Your task to perform on an android device: Go to ESPN.com Image 0: 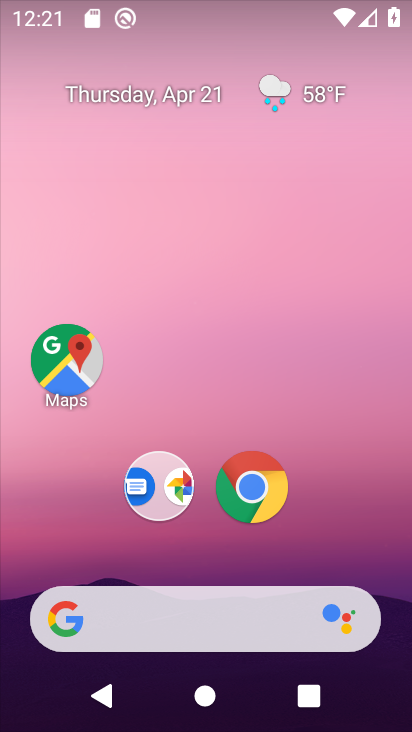
Step 0: drag from (265, 635) to (244, 275)
Your task to perform on an android device: Go to ESPN.com Image 1: 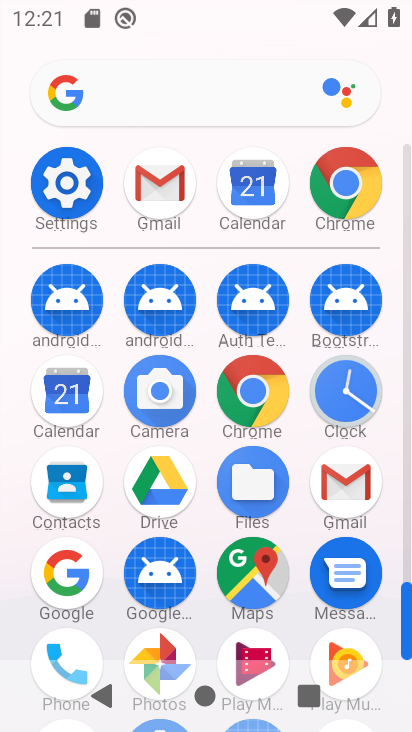
Step 1: click (241, 407)
Your task to perform on an android device: Go to ESPN.com Image 2: 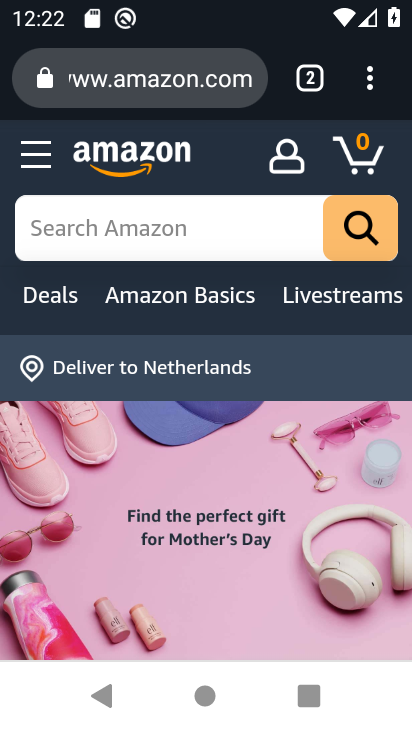
Step 2: click (215, 82)
Your task to perform on an android device: Go to ESPN.com Image 3: 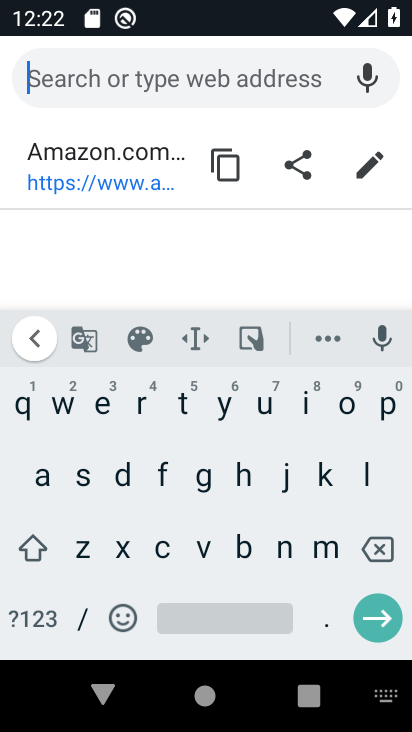
Step 3: click (105, 412)
Your task to perform on an android device: Go to ESPN.com Image 4: 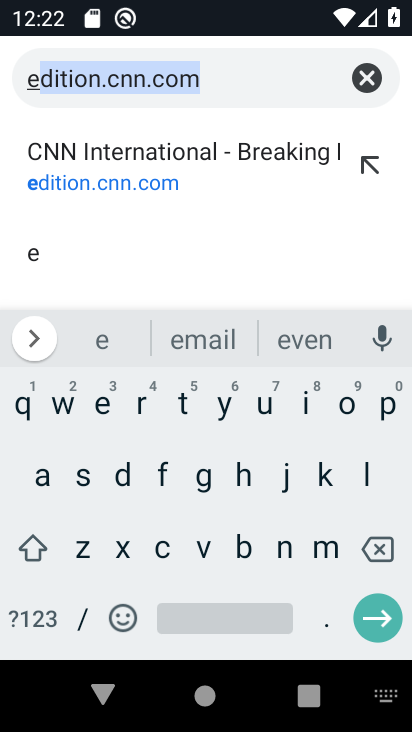
Step 4: click (83, 472)
Your task to perform on an android device: Go to ESPN.com Image 5: 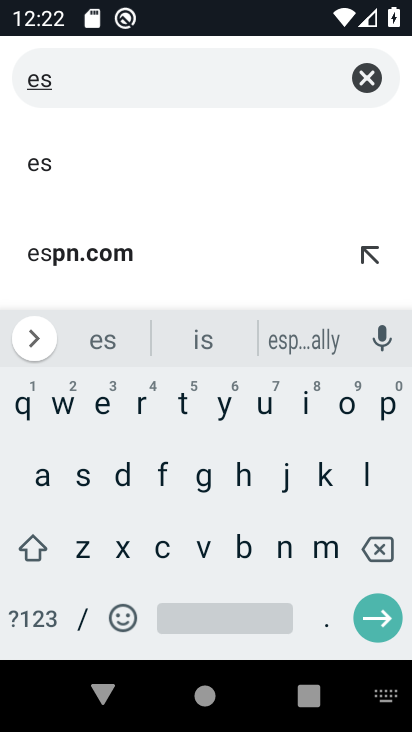
Step 5: click (145, 246)
Your task to perform on an android device: Go to ESPN.com Image 6: 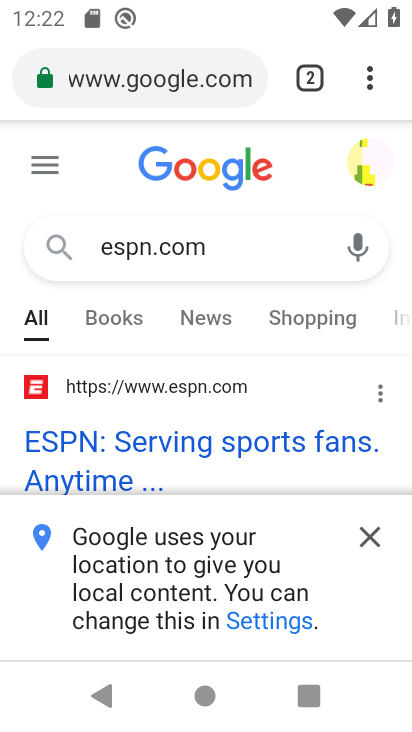
Step 6: click (74, 425)
Your task to perform on an android device: Go to ESPN.com Image 7: 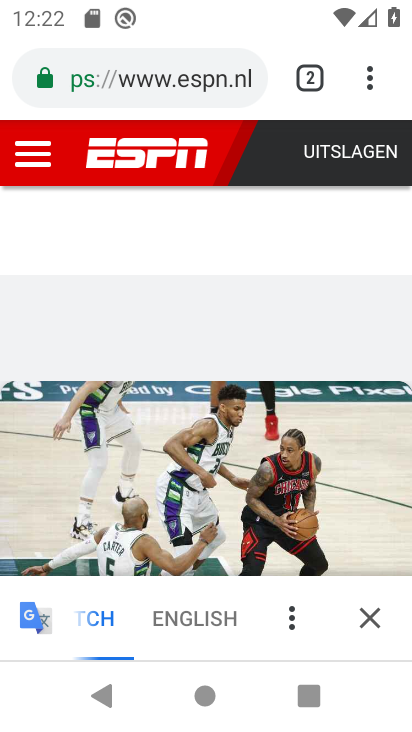
Step 7: drag from (129, 389) to (133, 316)
Your task to perform on an android device: Go to ESPN.com Image 8: 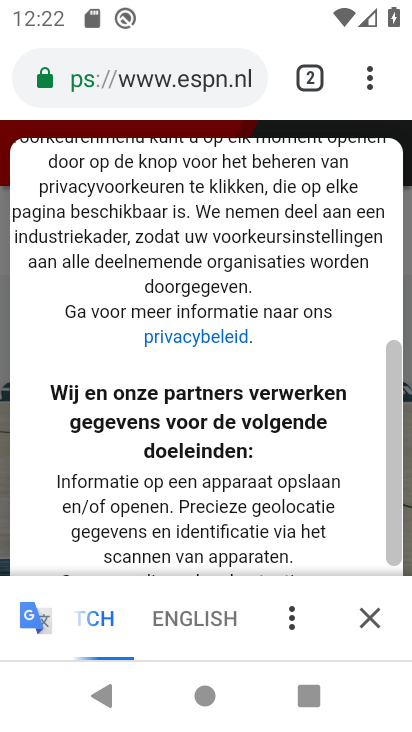
Step 8: drag from (285, 229) to (325, 544)
Your task to perform on an android device: Go to ESPN.com Image 9: 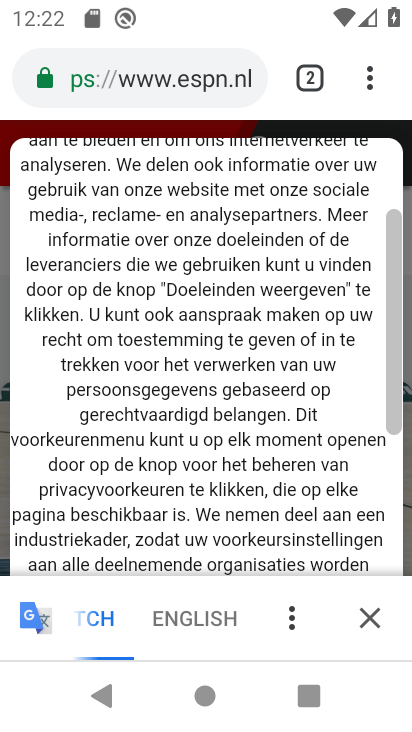
Step 9: drag from (329, 518) to (341, 162)
Your task to perform on an android device: Go to ESPN.com Image 10: 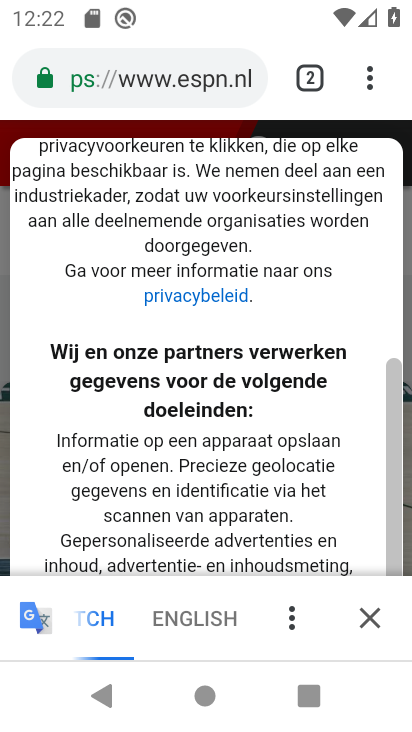
Step 10: drag from (248, 416) to (292, 265)
Your task to perform on an android device: Go to ESPN.com Image 11: 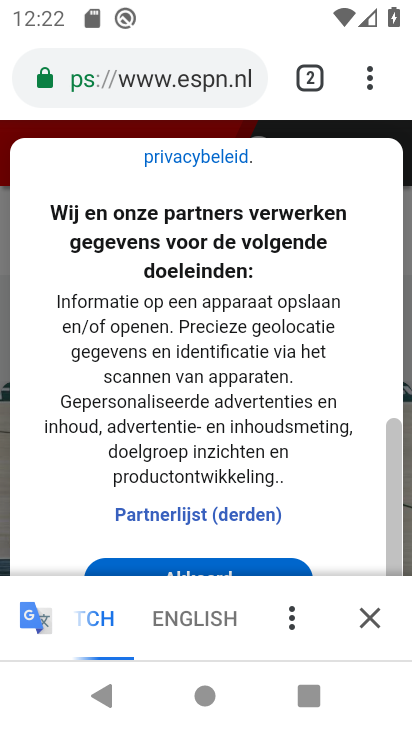
Step 11: click (373, 611)
Your task to perform on an android device: Go to ESPN.com Image 12: 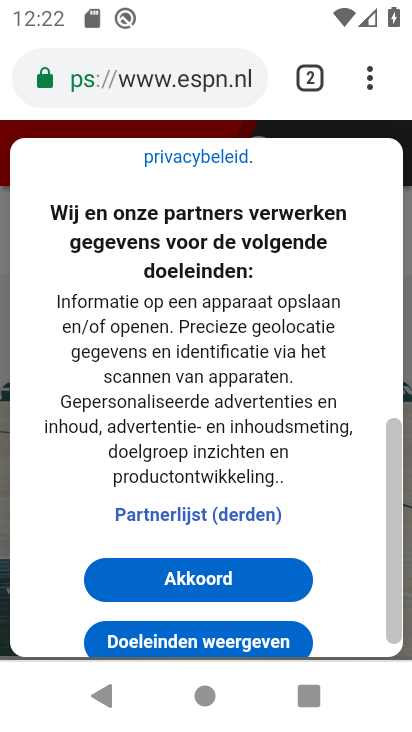
Step 12: click (245, 570)
Your task to perform on an android device: Go to ESPN.com Image 13: 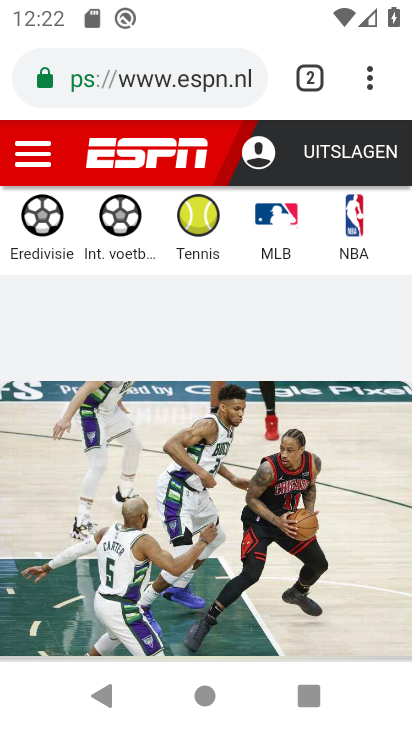
Step 13: task complete